Your task to perform on an android device: What's on my calendar today? Image 0: 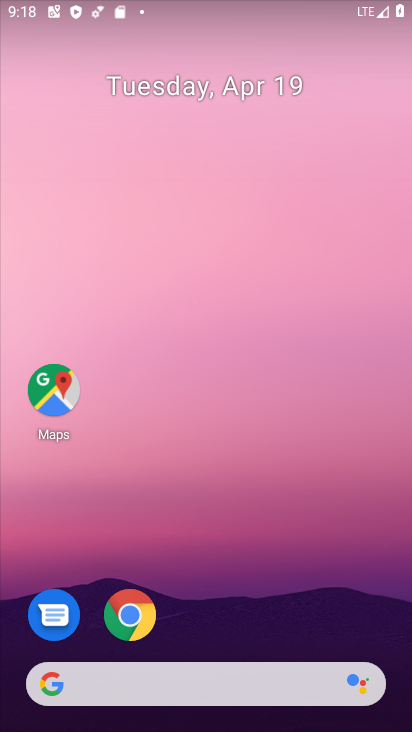
Step 0: click (190, 88)
Your task to perform on an android device: What's on my calendar today? Image 1: 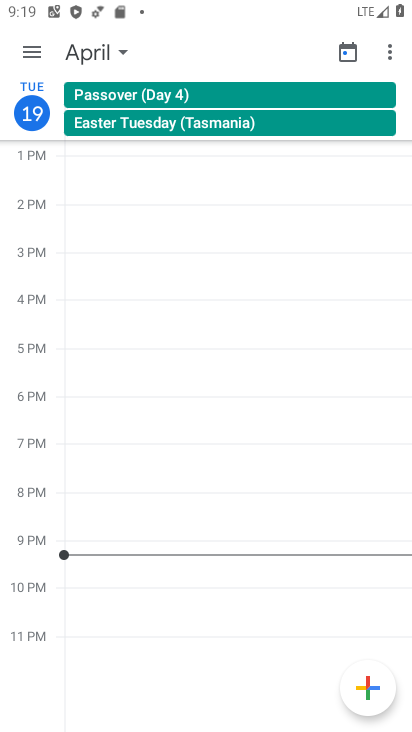
Step 1: click (33, 59)
Your task to perform on an android device: What's on my calendar today? Image 2: 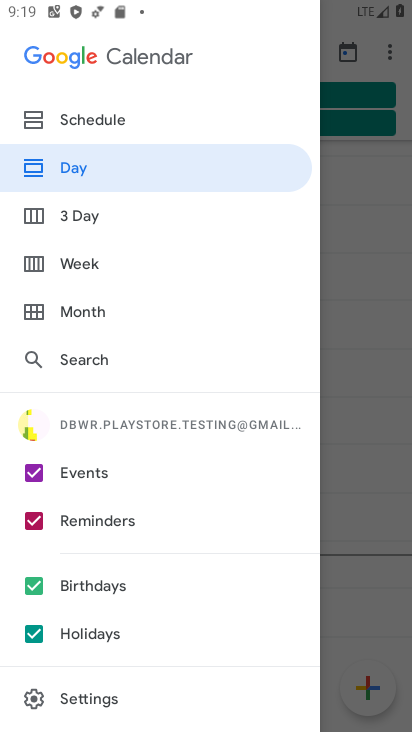
Step 2: click (379, 201)
Your task to perform on an android device: What's on my calendar today? Image 3: 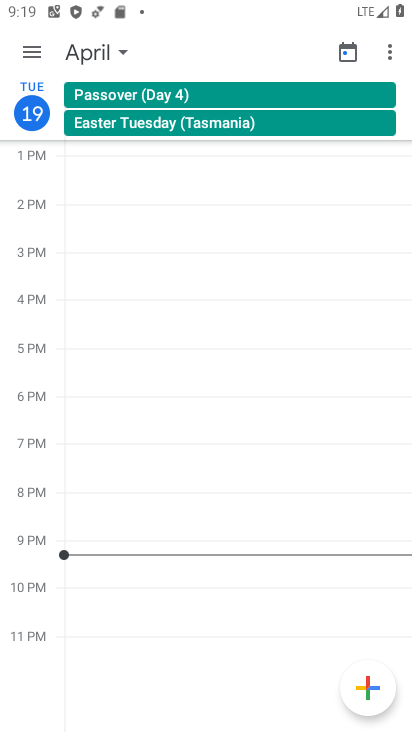
Step 3: click (111, 50)
Your task to perform on an android device: What's on my calendar today? Image 4: 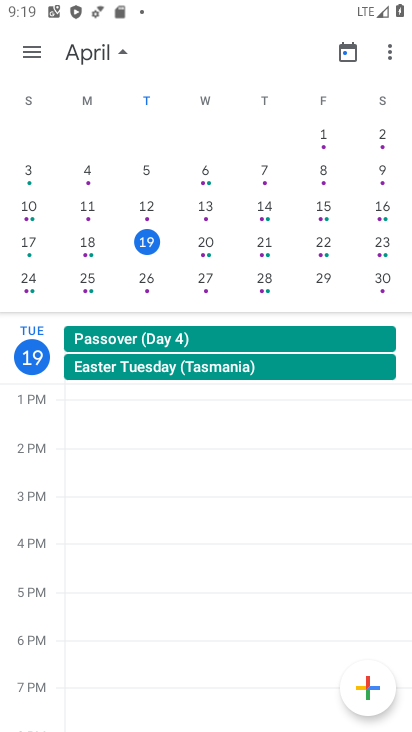
Step 4: click (152, 239)
Your task to perform on an android device: What's on my calendar today? Image 5: 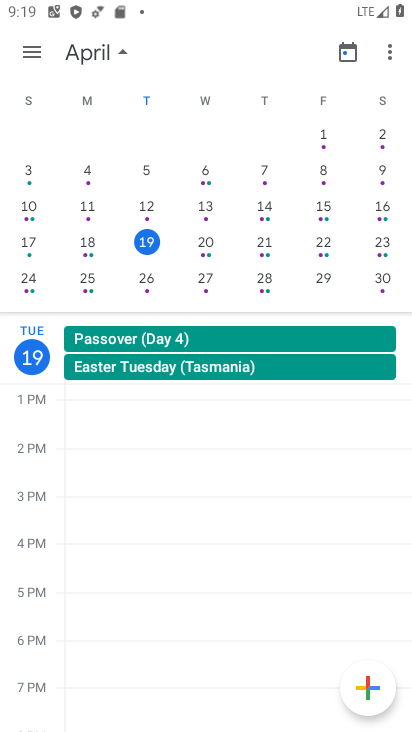
Step 5: click (143, 245)
Your task to perform on an android device: What's on my calendar today? Image 6: 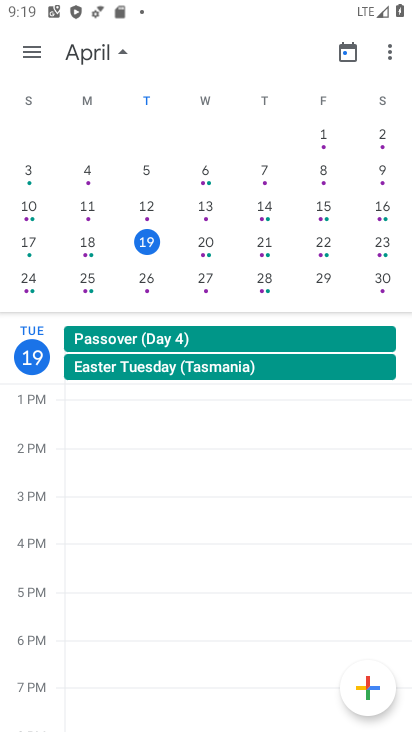
Step 6: click (149, 250)
Your task to perform on an android device: What's on my calendar today? Image 7: 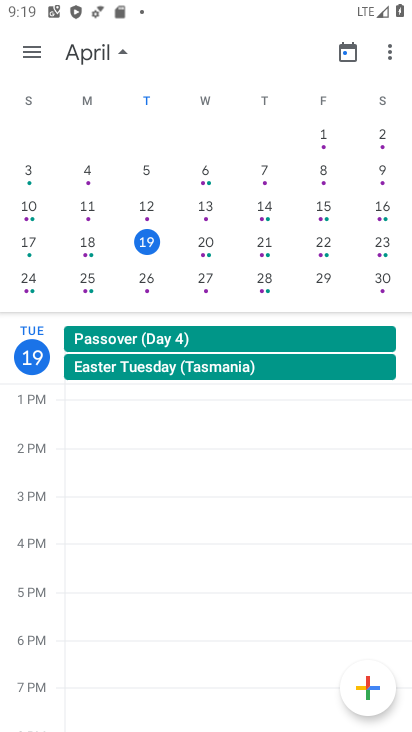
Step 7: click (149, 250)
Your task to perform on an android device: What's on my calendar today? Image 8: 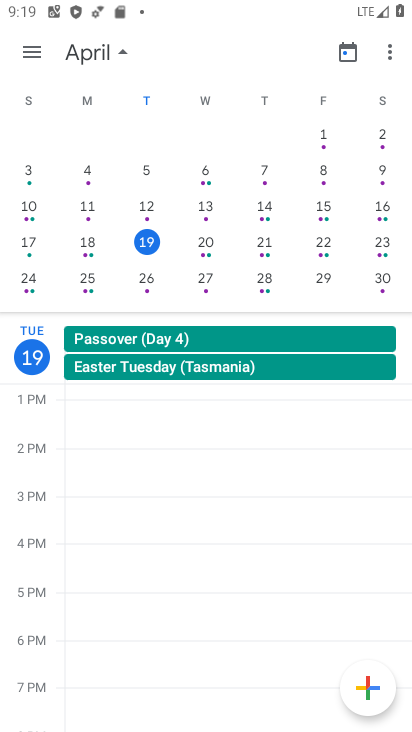
Step 8: task complete